Your task to perform on an android device: open sync settings in chrome Image 0: 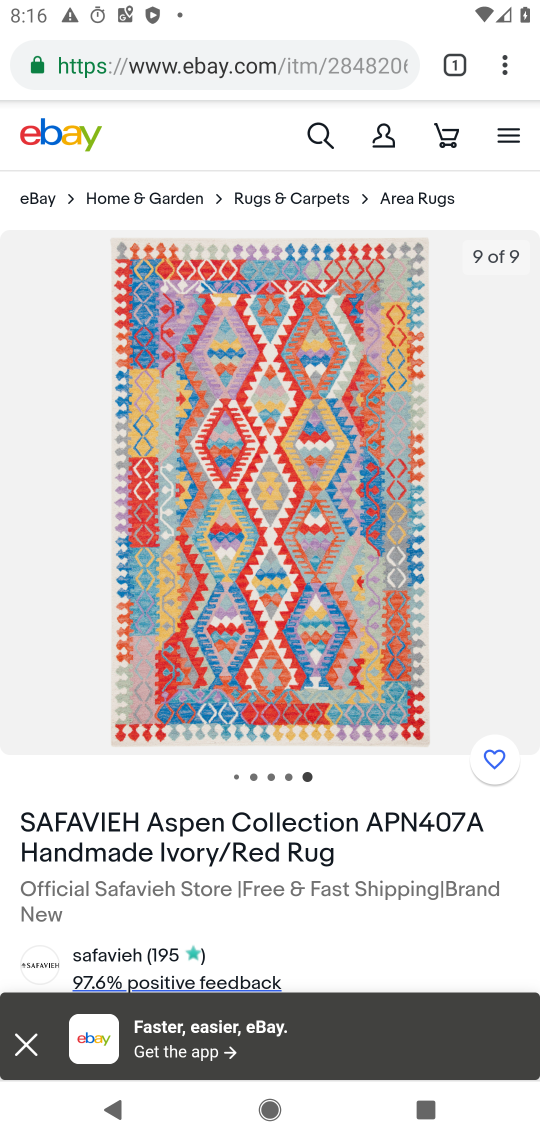
Step 0: click (505, 58)
Your task to perform on an android device: open sync settings in chrome Image 1: 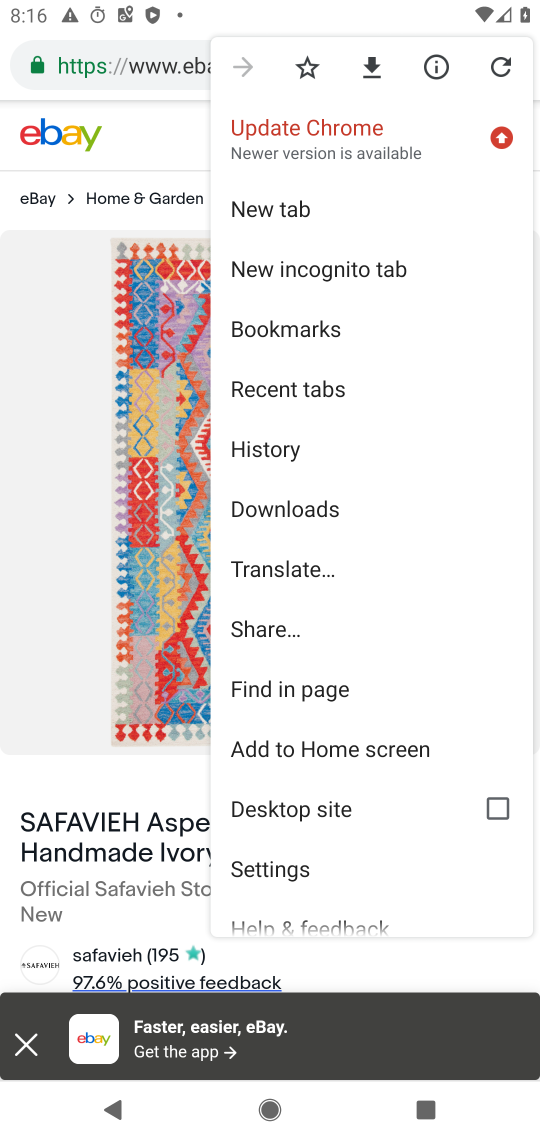
Step 1: click (294, 877)
Your task to perform on an android device: open sync settings in chrome Image 2: 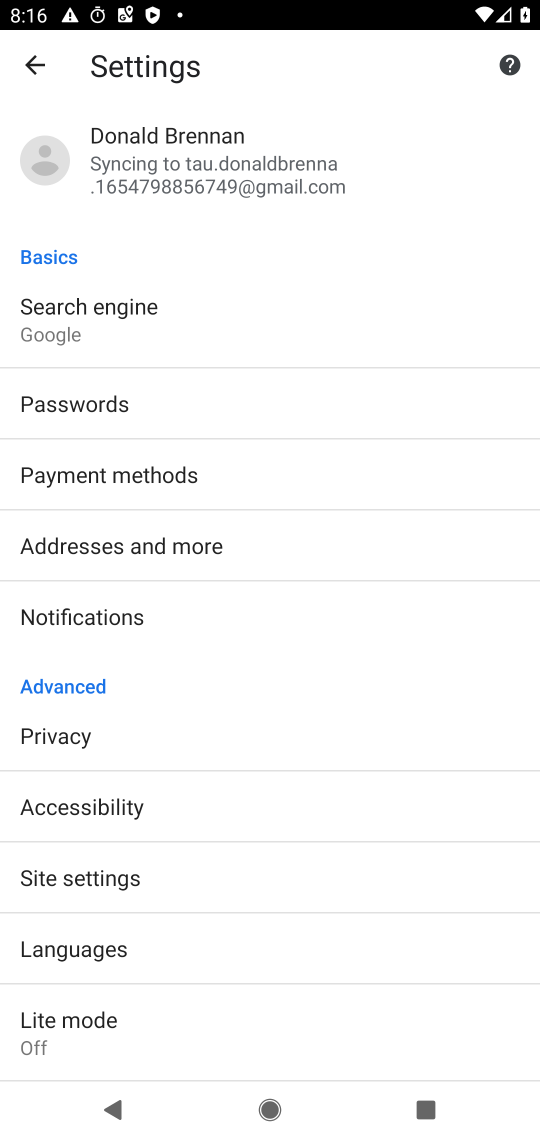
Step 2: click (238, 158)
Your task to perform on an android device: open sync settings in chrome Image 3: 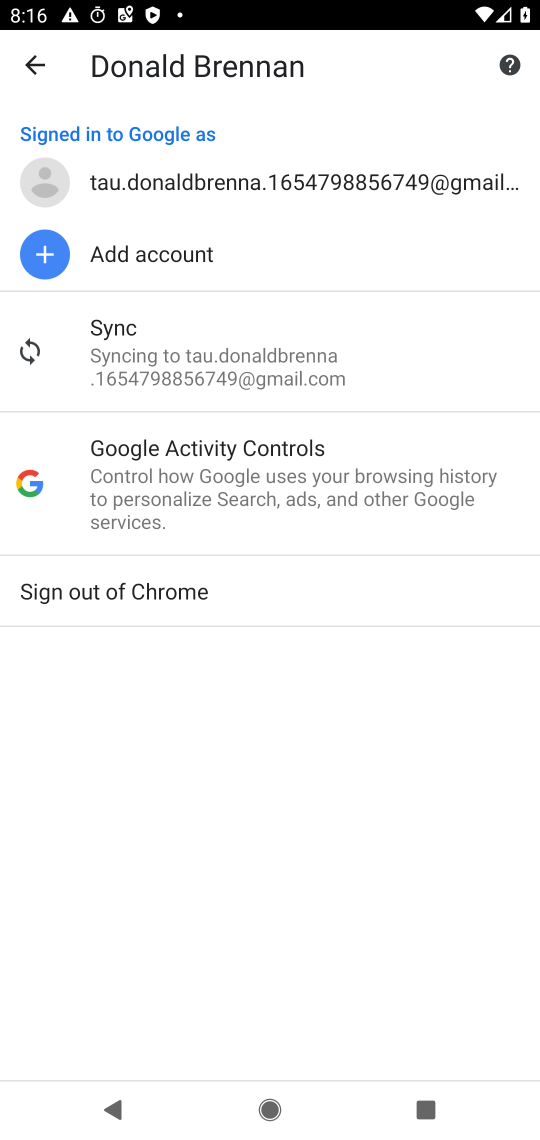
Step 3: click (225, 340)
Your task to perform on an android device: open sync settings in chrome Image 4: 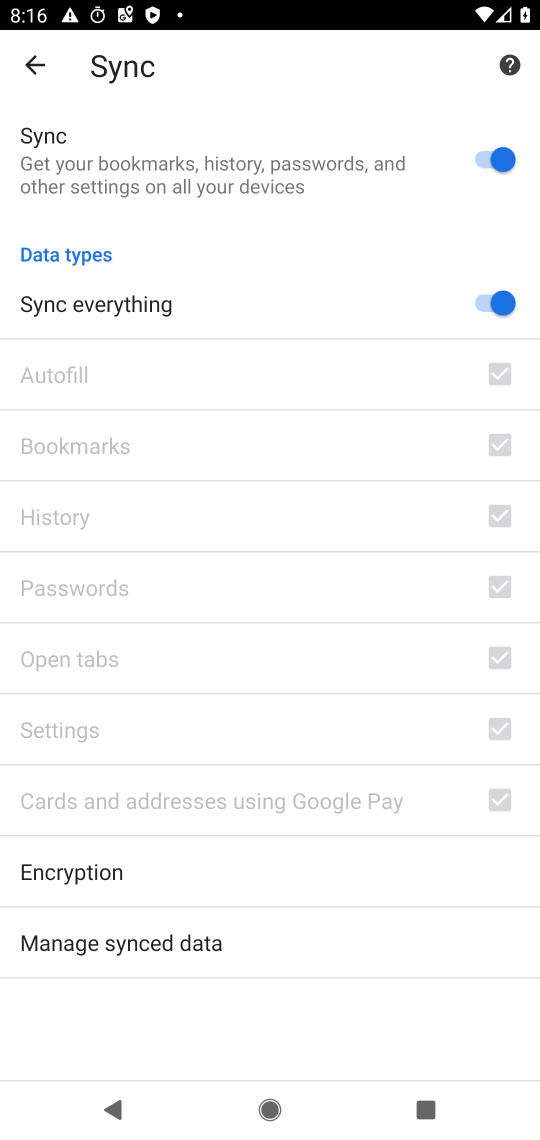
Step 4: task complete